Your task to perform on an android device: turn on priority inbox in the gmail app Image 0: 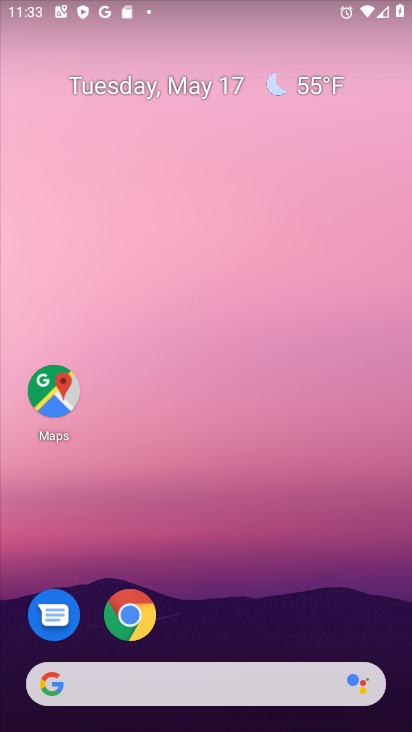
Step 0: drag from (323, 547) to (260, 84)
Your task to perform on an android device: turn on priority inbox in the gmail app Image 1: 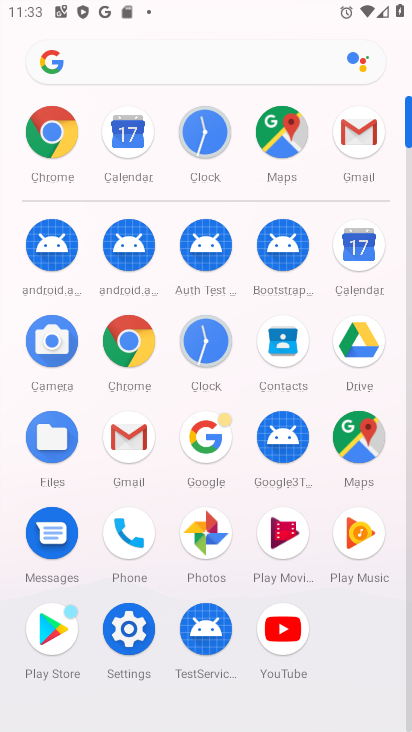
Step 1: click (349, 127)
Your task to perform on an android device: turn on priority inbox in the gmail app Image 2: 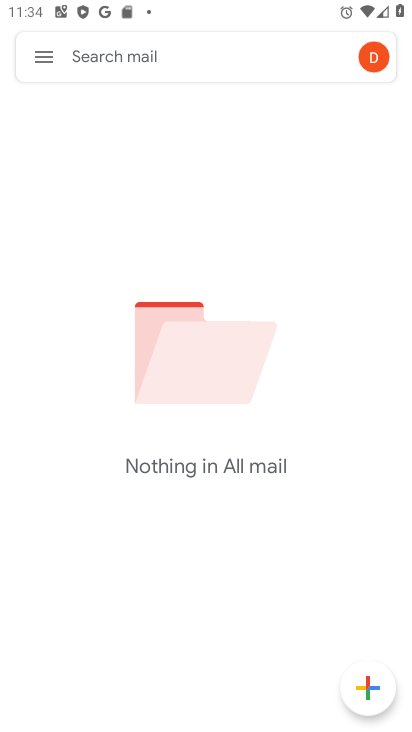
Step 2: click (36, 54)
Your task to perform on an android device: turn on priority inbox in the gmail app Image 3: 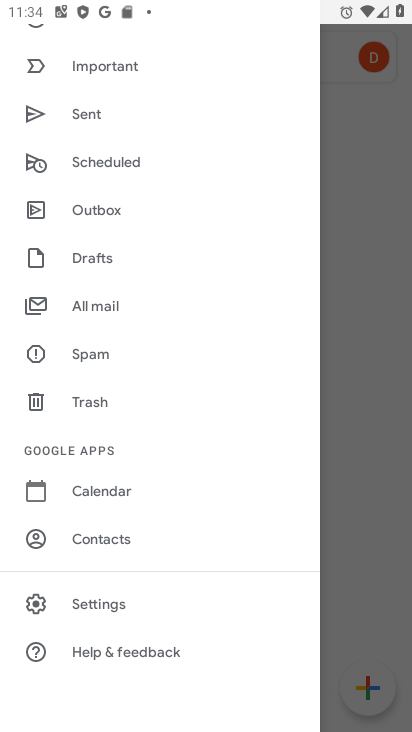
Step 3: click (133, 615)
Your task to perform on an android device: turn on priority inbox in the gmail app Image 4: 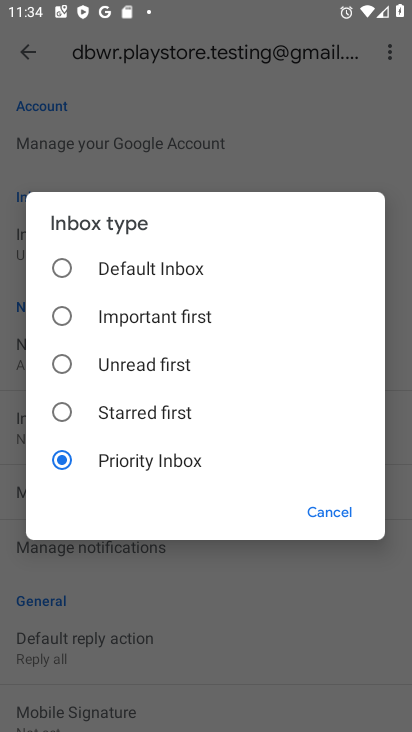
Step 4: task complete